Your task to perform on an android device: Check the news Image 0: 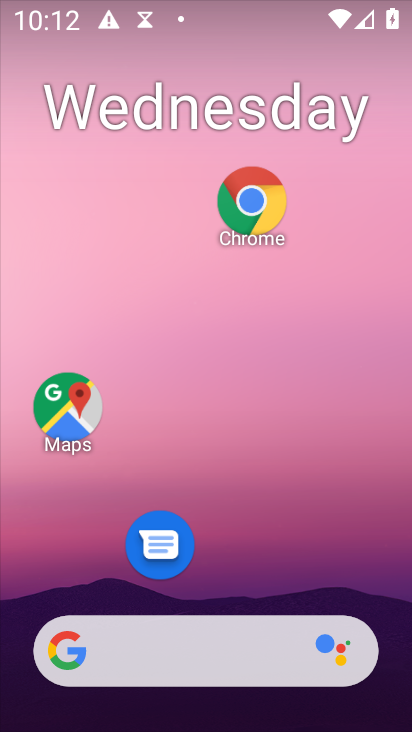
Step 0: click (218, 662)
Your task to perform on an android device: Check the news Image 1: 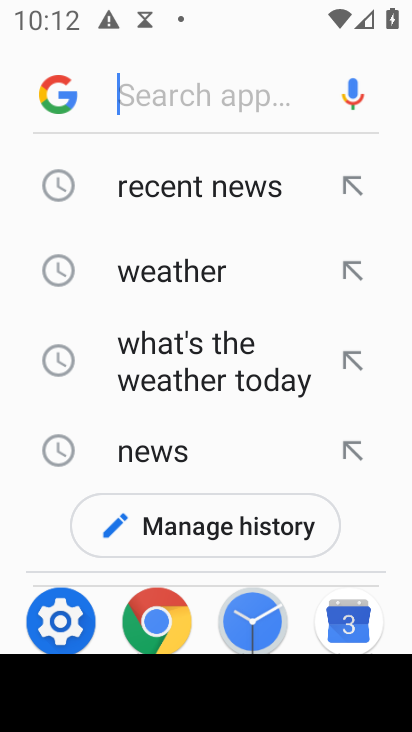
Step 1: type "news"
Your task to perform on an android device: Check the news Image 2: 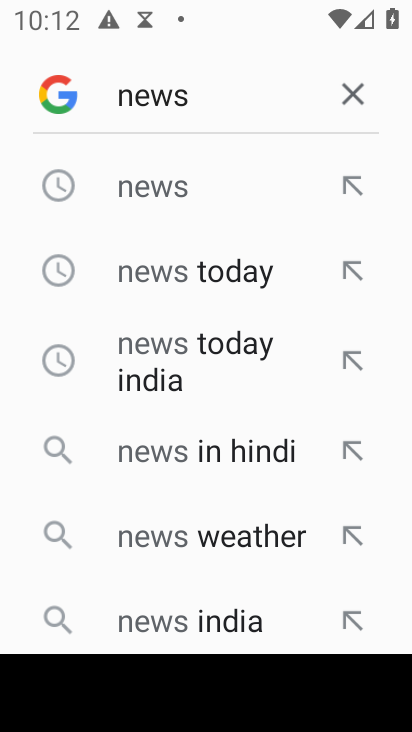
Step 2: click (166, 181)
Your task to perform on an android device: Check the news Image 3: 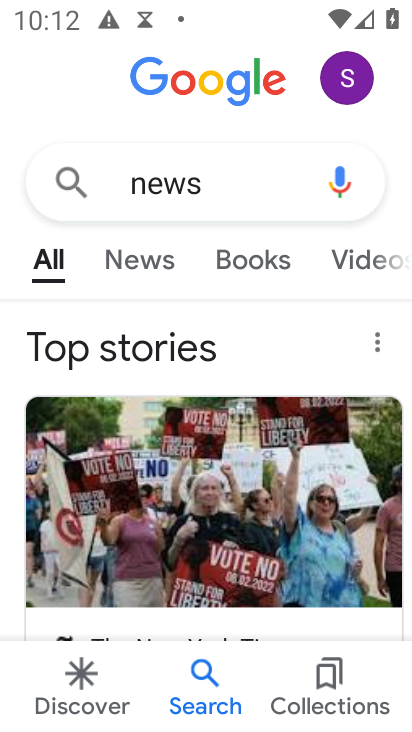
Step 3: click (152, 262)
Your task to perform on an android device: Check the news Image 4: 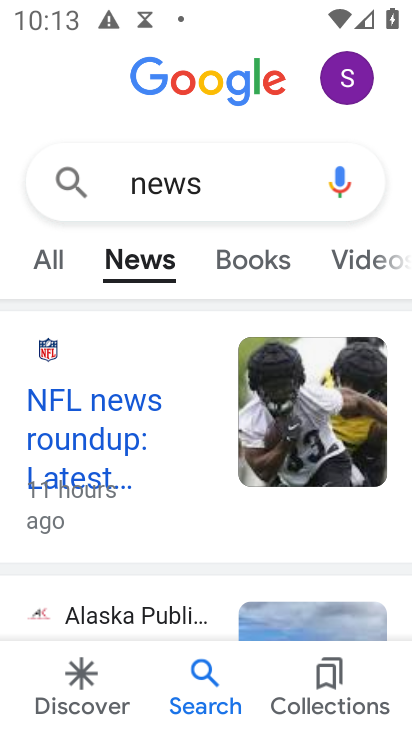
Step 4: task complete